Your task to perform on an android device: Go to Google Image 0: 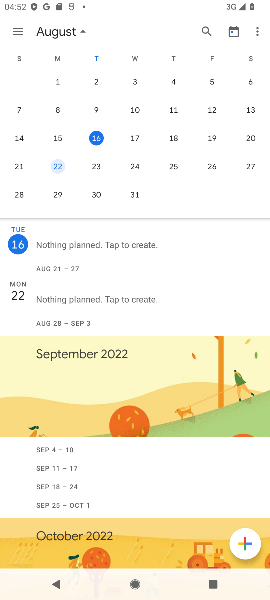
Step 0: press home button
Your task to perform on an android device: Go to Google Image 1: 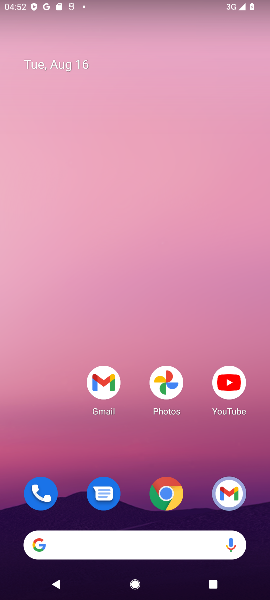
Step 1: drag from (32, 444) to (60, 150)
Your task to perform on an android device: Go to Google Image 2: 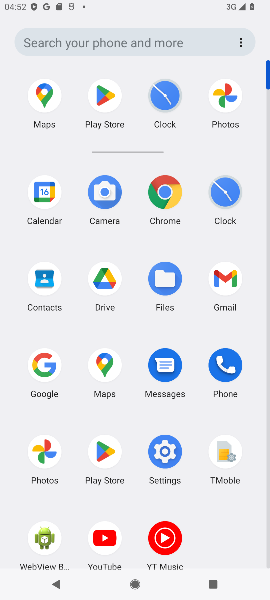
Step 2: click (43, 376)
Your task to perform on an android device: Go to Google Image 3: 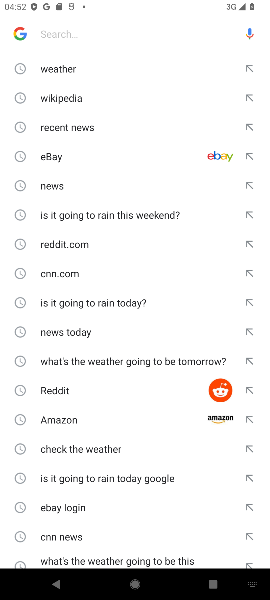
Step 3: task complete